Your task to perform on an android device: Search for pizza restaurants on Maps Image 0: 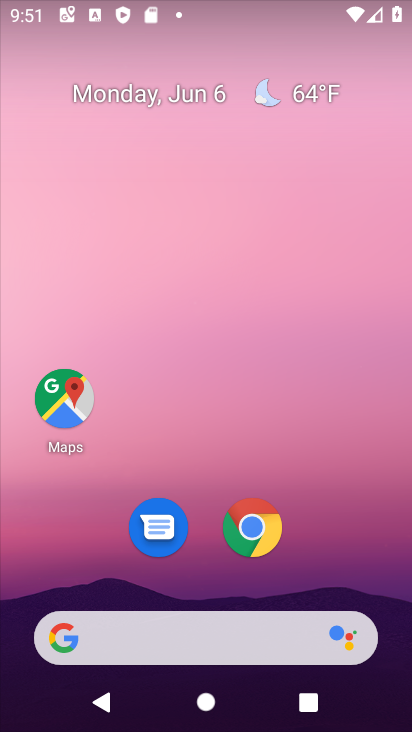
Step 0: drag from (220, 601) to (242, 384)
Your task to perform on an android device: Search for pizza restaurants on Maps Image 1: 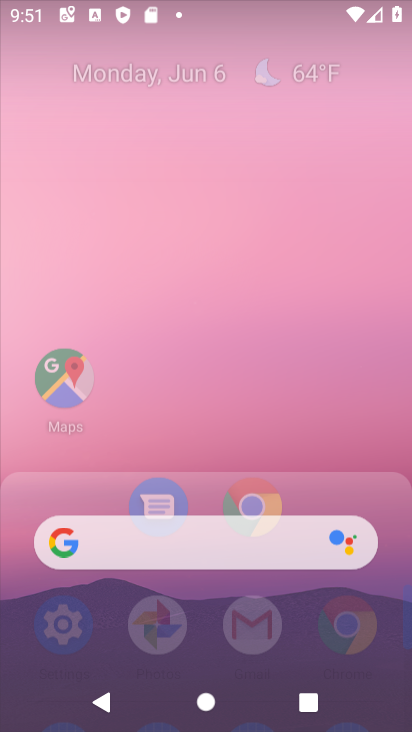
Step 1: click (257, 267)
Your task to perform on an android device: Search for pizza restaurants on Maps Image 2: 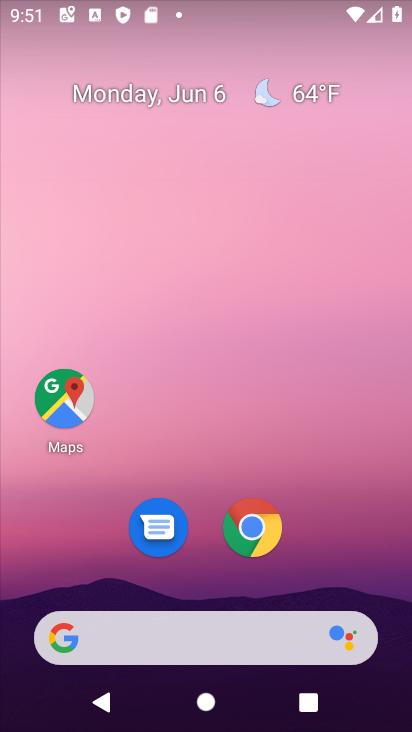
Step 2: drag from (184, 585) to (229, 241)
Your task to perform on an android device: Search for pizza restaurants on Maps Image 3: 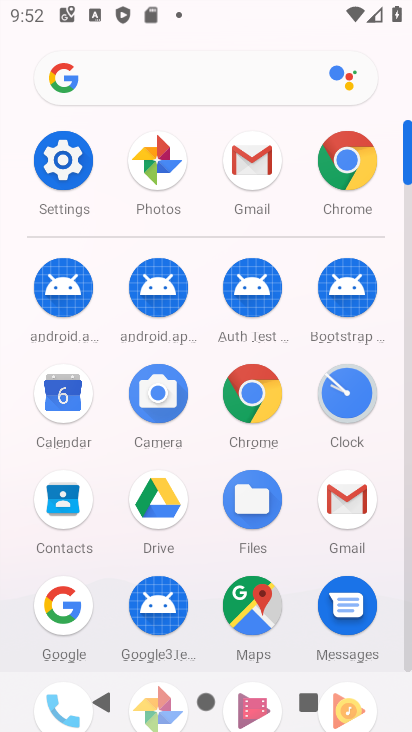
Step 3: click (251, 603)
Your task to perform on an android device: Search for pizza restaurants on Maps Image 4: 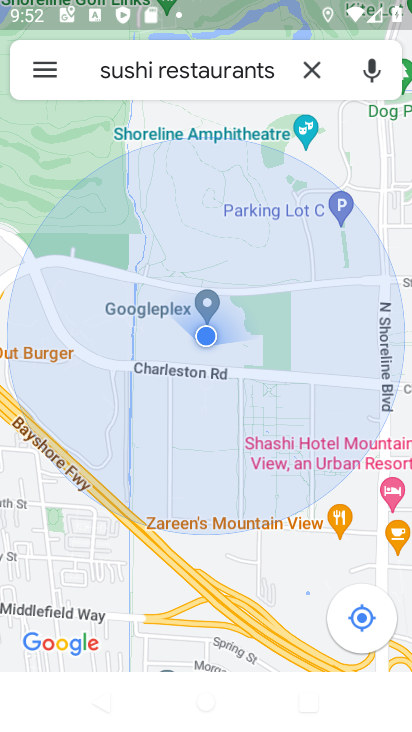
Step 4: click (311, 71)
Your task to perform on an android device: Search for pizza restaurants on Maps Image 5: 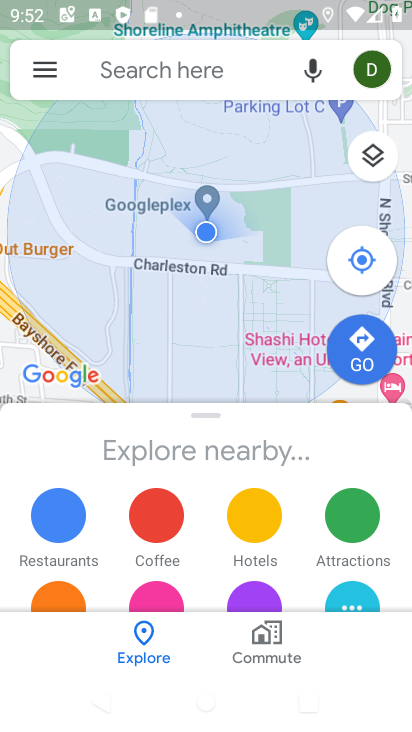
Step 5: click (215, 79)
Your task to perform on an android device: Search for pizza restaurants on Maps Image 6: 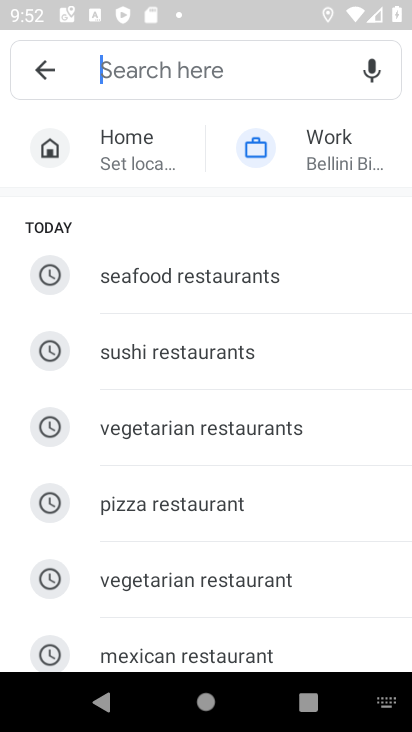
Step 6: click (188, 502)
Your task to perform on an android device: Search for pizza restaurants on Maps Image 7: 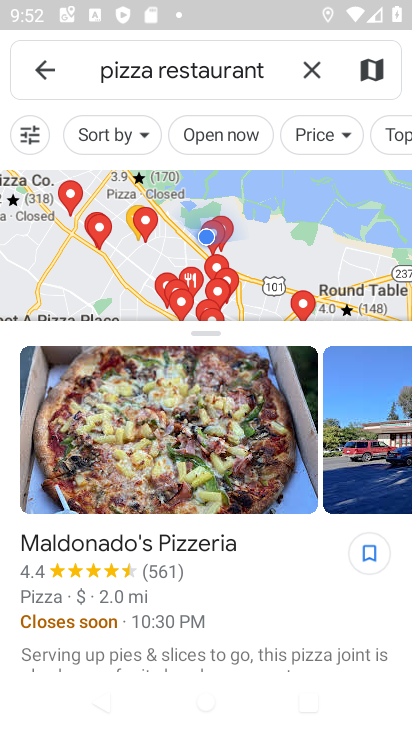
Step 7: task complete